Your task to perform on an android device: How much does the new iPad cost? Image 0: 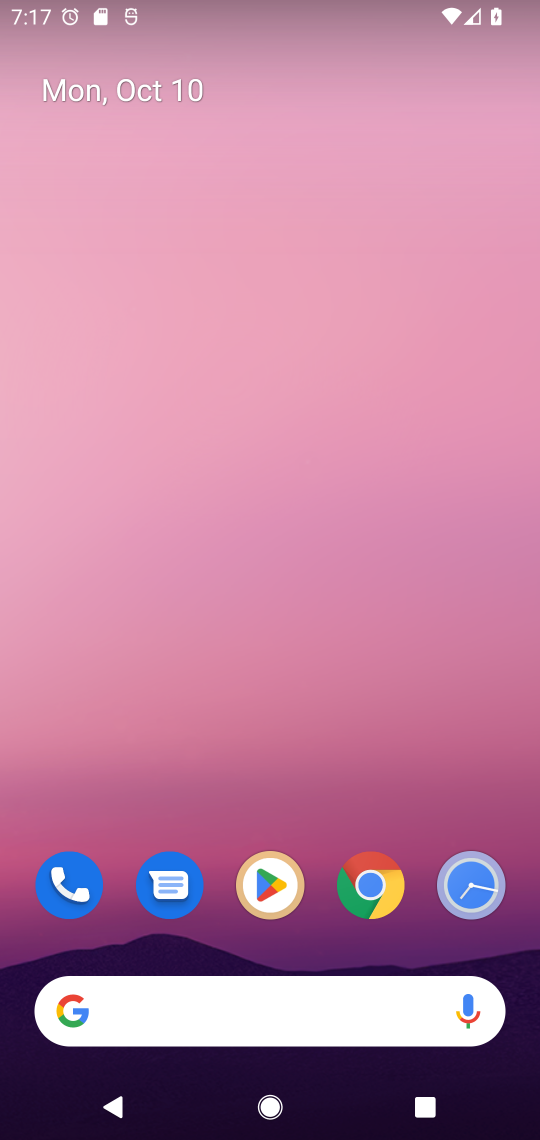
Step 0: type ""
Your task to perform on an android device: How much does the new iPad cost? Image 1: 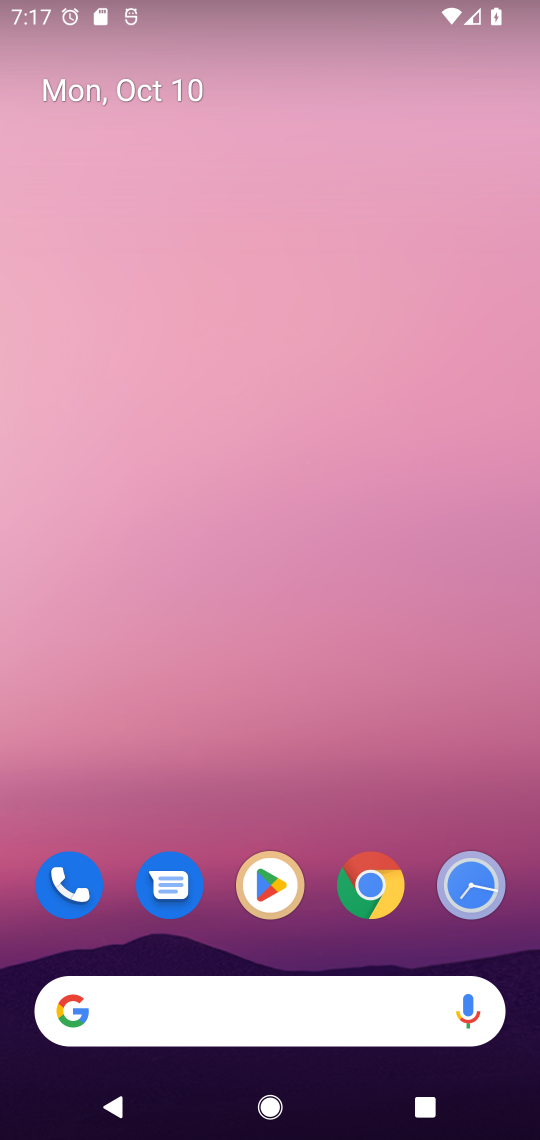
Step 1: click (364, 873)
Your task to perform on an android device: How much does the new iPad cost? Image 2: 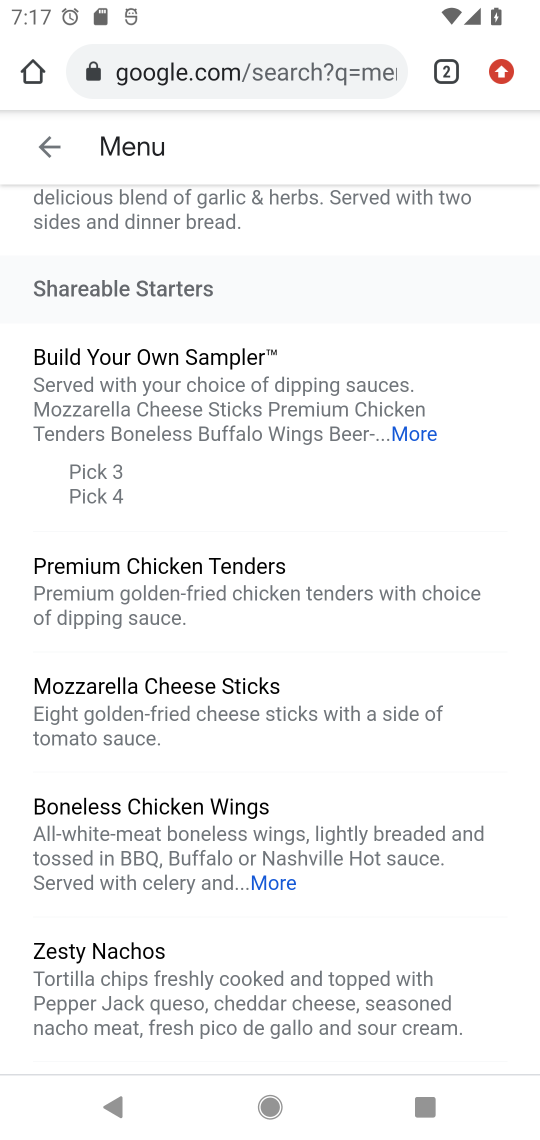
Step 2: click (175, 57)
Your task to perform on an android device: How much does the new iPad cost? Image 3: 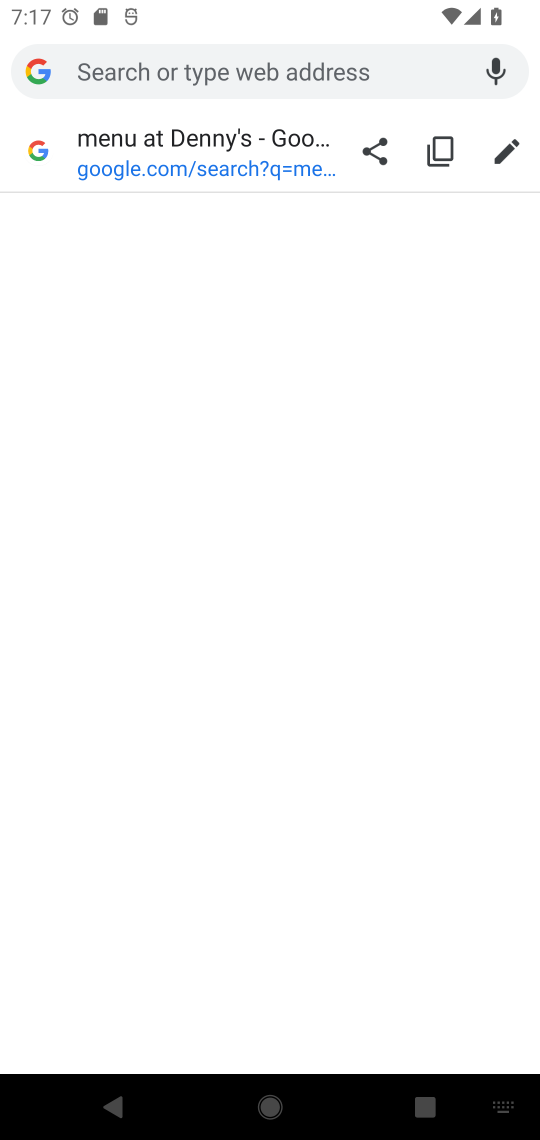
Step 3: type "new iPad cost"
Your task to perform on an android device: How much does the new iPad cost? Image 4: 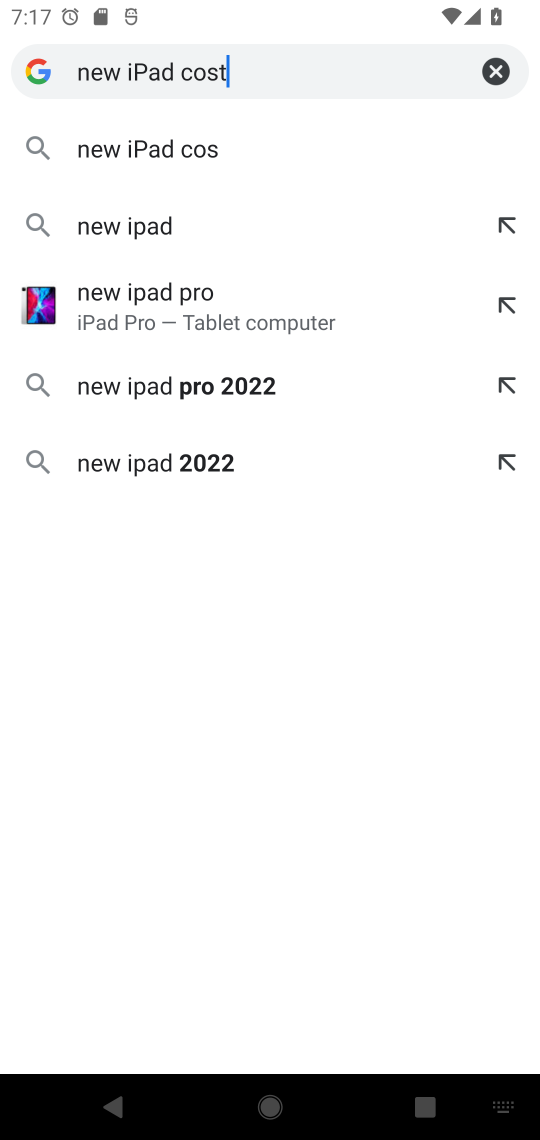
Step 4: type ""
Your task to perform on an android device: How much does the new iPad cost? Image 5: 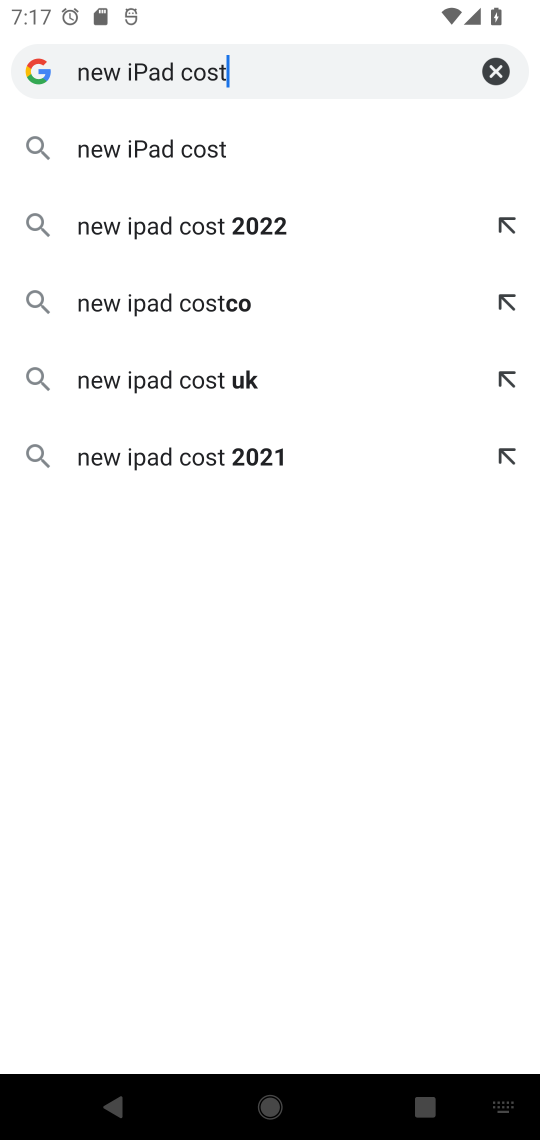
Step 5: click (127, 150)
Your task to perform on an android device: How much does the new iPad cost? Image 6: 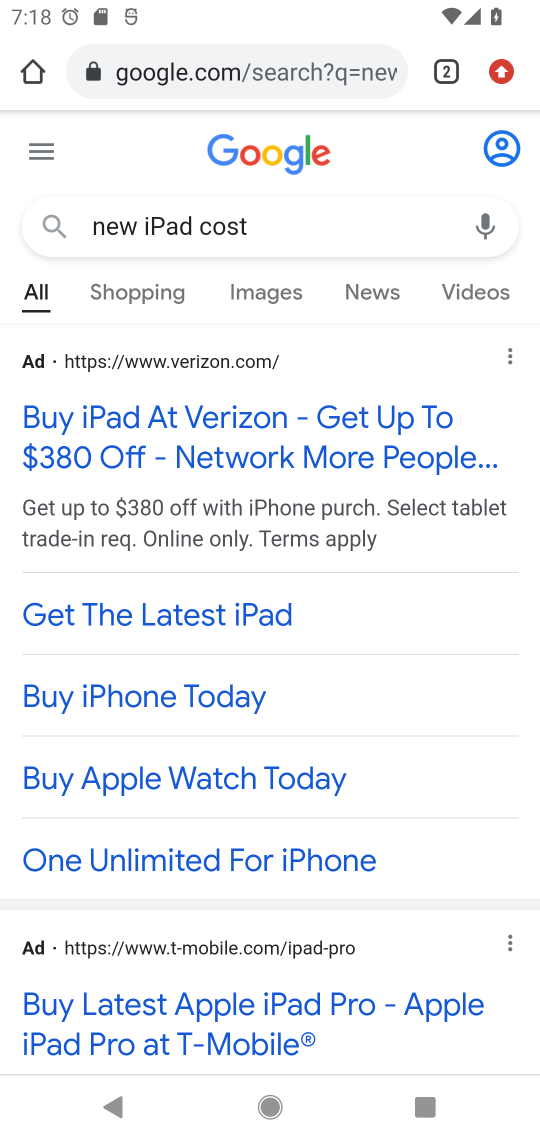
Step 6: drag from (405, 905) to (354, 668)
Your task to perform on an android device: How much does the new iPad cost? Image 7: 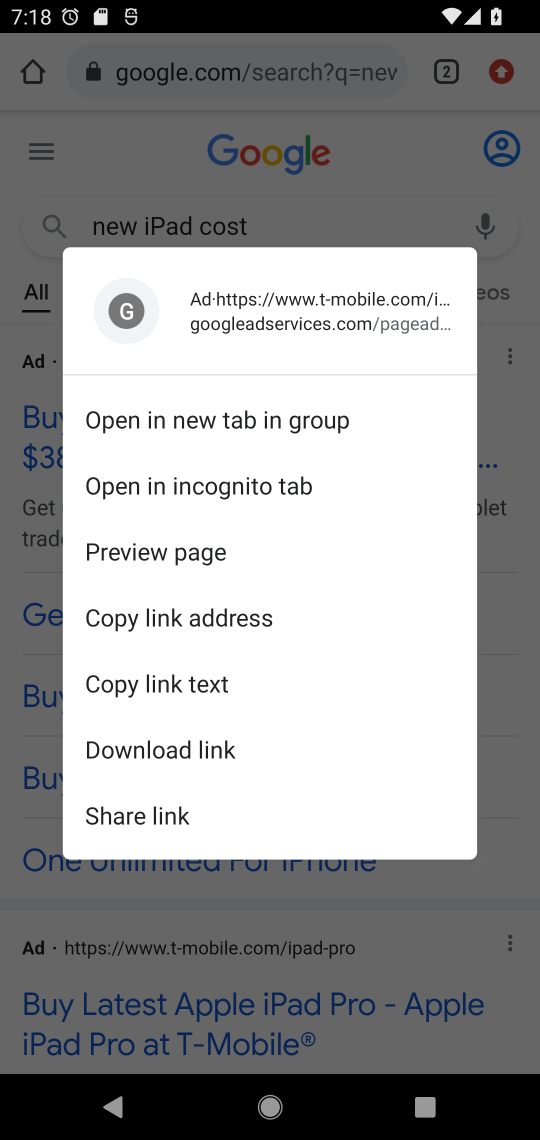
Step 7: click (466, 902)
Your task to perform on an android device: How much does the new iPad cost? Image 8: 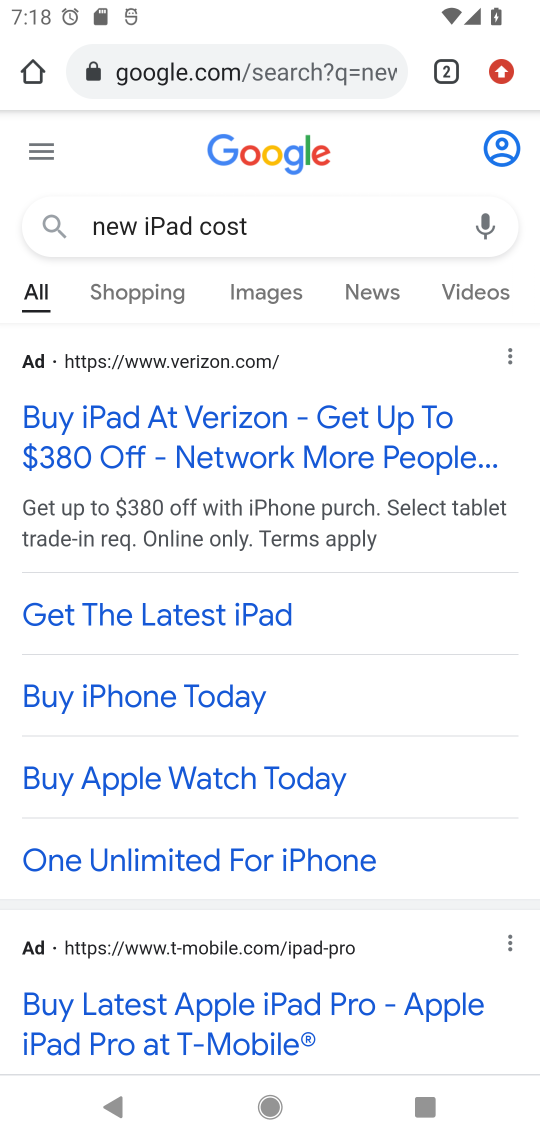
Step 8: drag from (328, 897) to (234, 394)
Your task to perform on an android device: How much does the new iPad cost? Image 9: 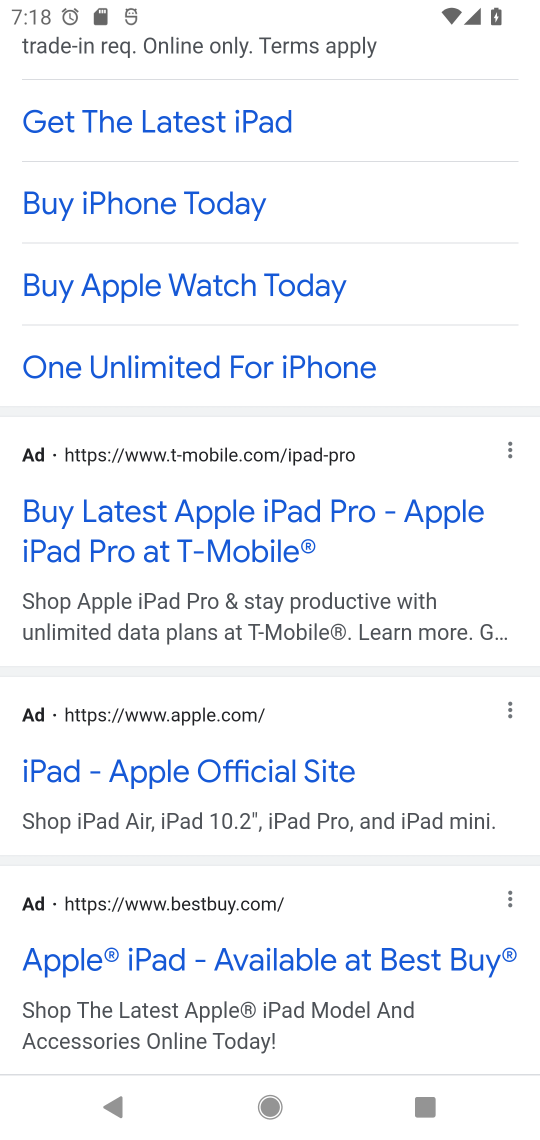
Step 9: click (234, 768)
Your task to perform on an android device: How much does the new iPad cost? Image 10: 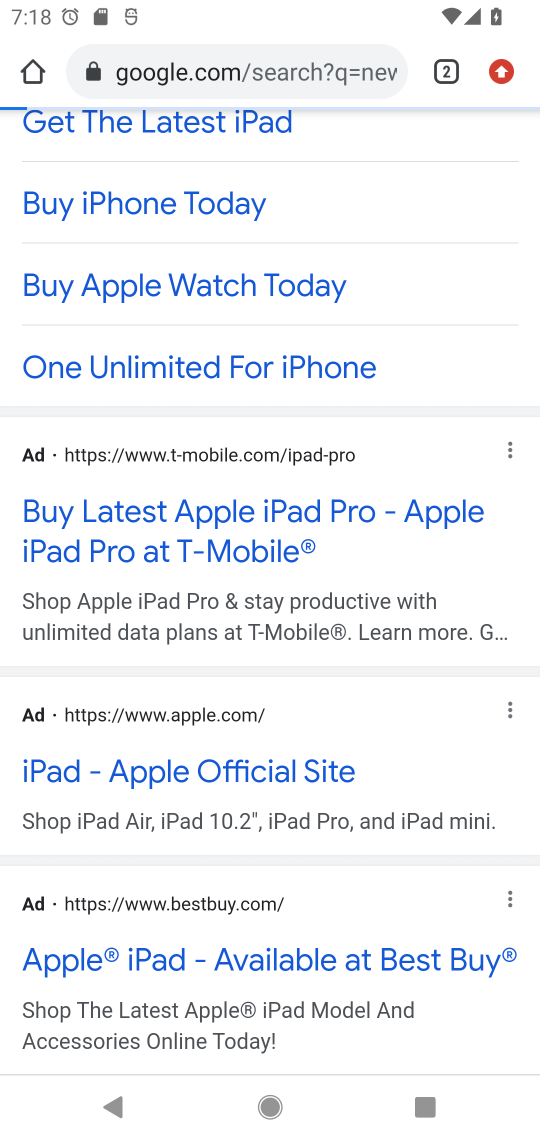
Step 10: click (227, 768)
Your task to perform on an android device: How much does the new iPad cost? Image 11: 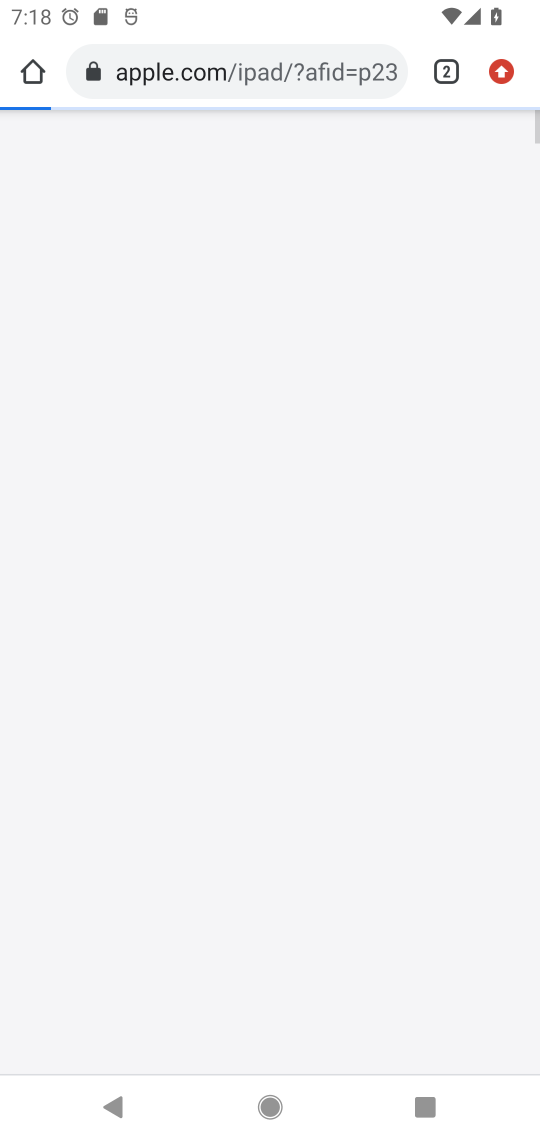
Step 11: click (241, 517)
Your task to perform on an android device: How much does the new iPad cost? Image 12: 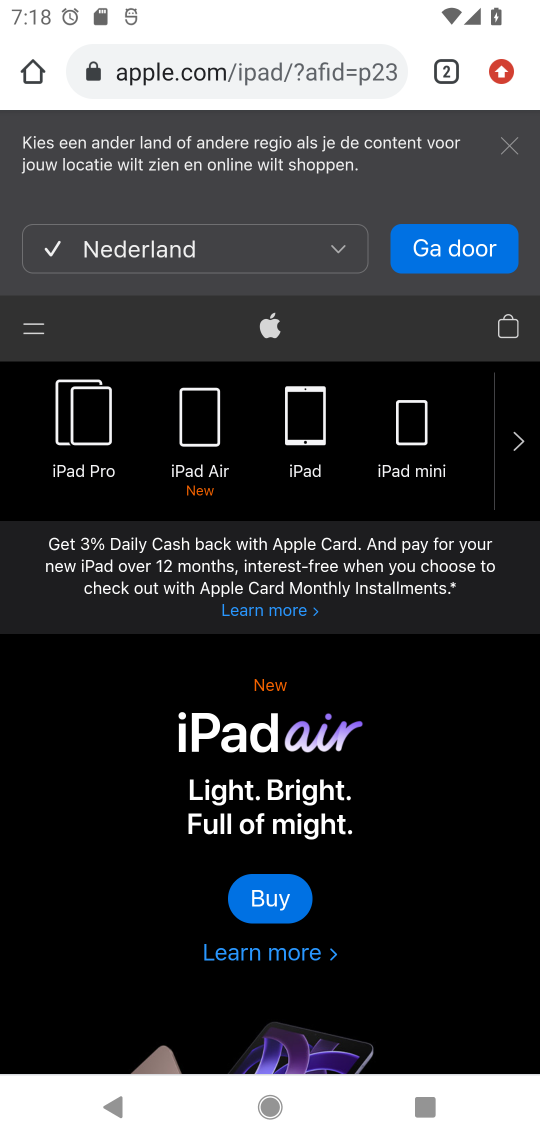
Step 12: task complete